Your task to perform on an android device: Open privacy settings Image 0: 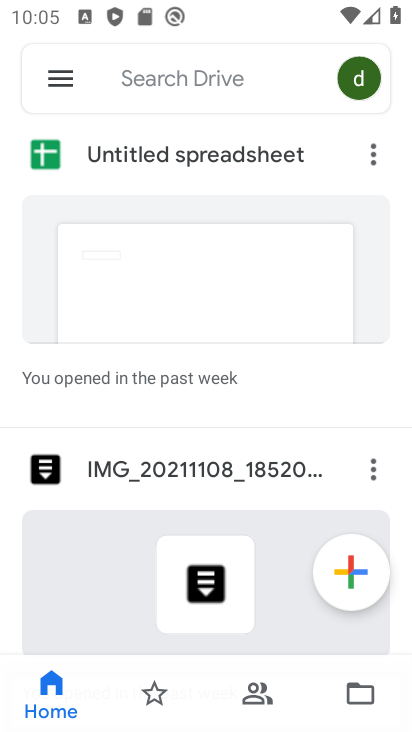
Step 0: press home button
Your task to perform on an android device: Open privacy settings Image 1: 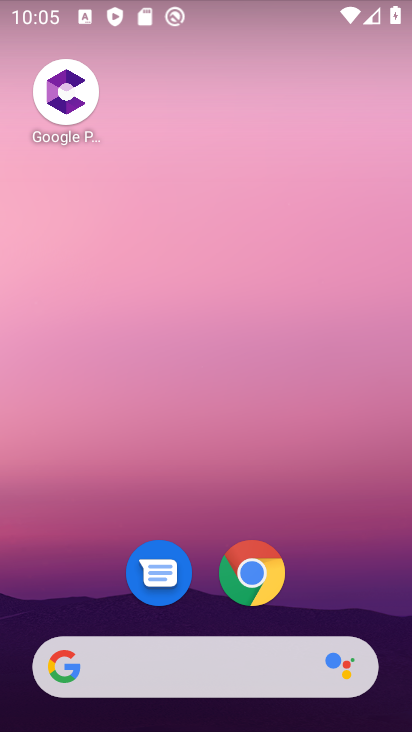
Step 1: drag from (356, 565) to (312, 29)
Your task to perform on an android device: Open privacy settings Image 2: 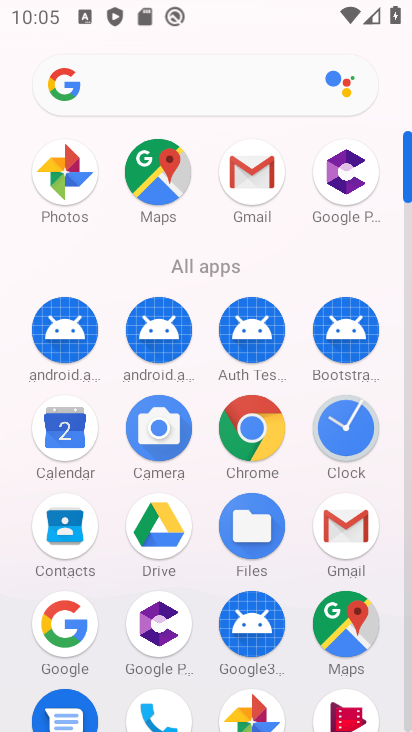
Step 2: drag from (383, 537) to (348, 26)
Your task to perform on an android device: Open privacy settings Image 3: 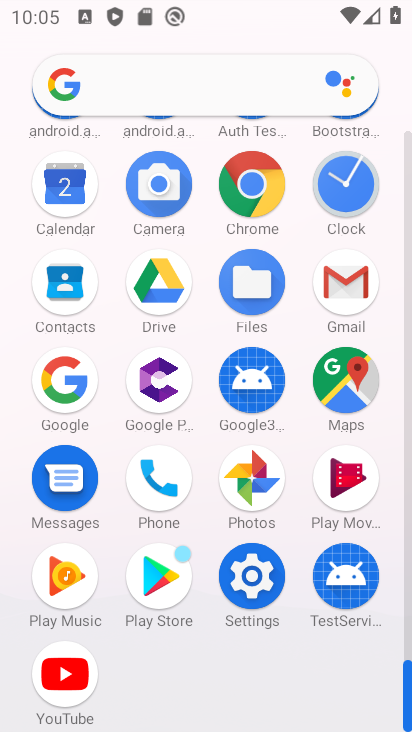
Step 3: click (218, 566)
Your task to perform on an android device: Open privacy settings Image 4: 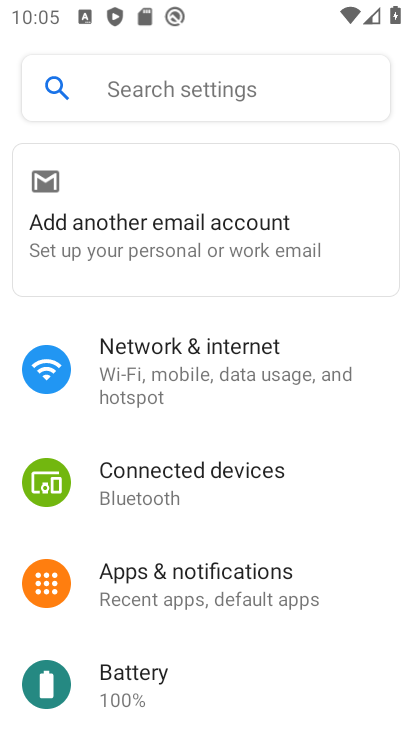
Step 4: drag from (247, 525) to (258, 242)
Your task to perform on an android device: Open privacy settings Image 5: 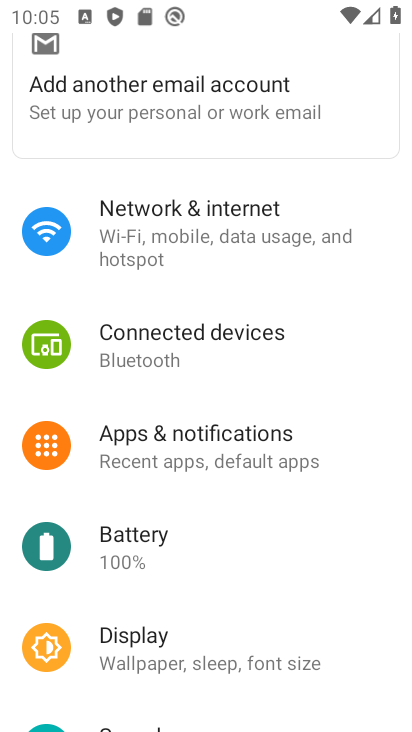
Step 5: drag from (257, 544) to (264, 215)
Your task to perform on an android device: Open privacy settings Image 6: 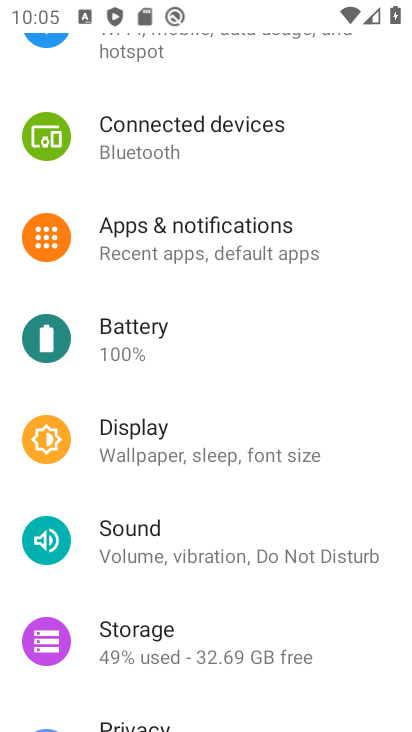
Step 6: drag from (198, 581) to (281, 155)
Your task to perform on an android device: Open privacy settings Image 7: 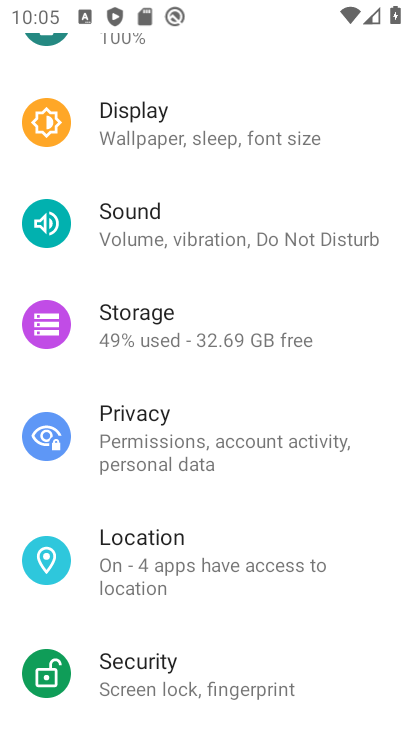
Step 7: drag from (300, 629) to (334, 263)
Your task to perform on an android device: Open privacy settings Image 8: 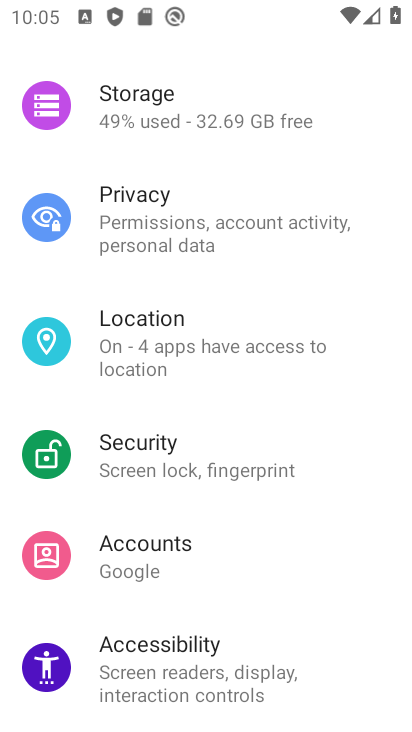
Step 8: click (186, 229)
Your task to perform on an android device: Open privacy settings Image 9: 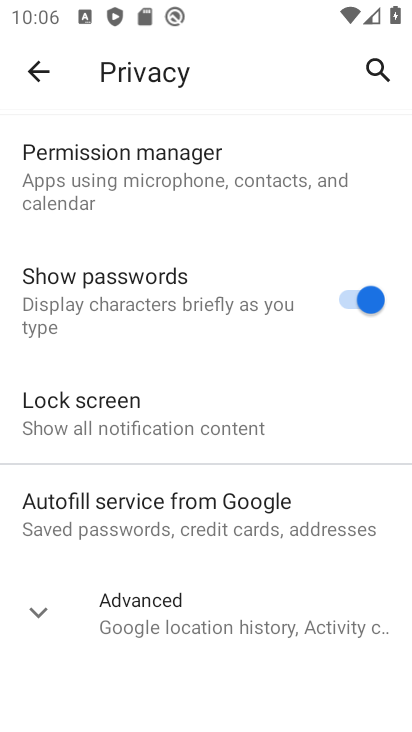
Step 9: task complete